Your task to perform on an android device: turn on notifications settings in the gmail app Image 0: 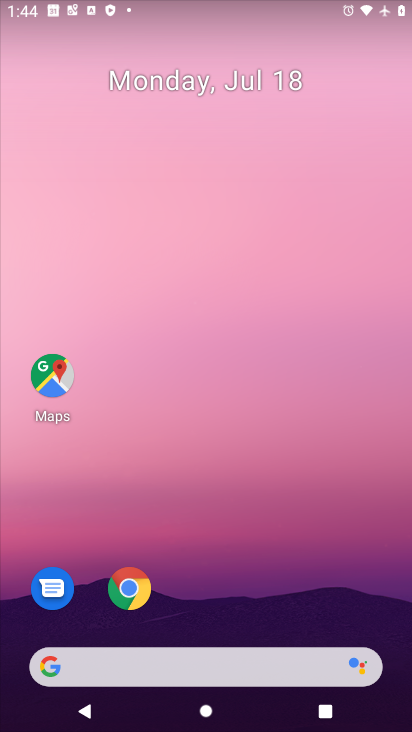
Step 0: drag from (200, 661) to (233, 206)
Your task to perform on an android device: turn on notifications settings in the gmail app Image 1: 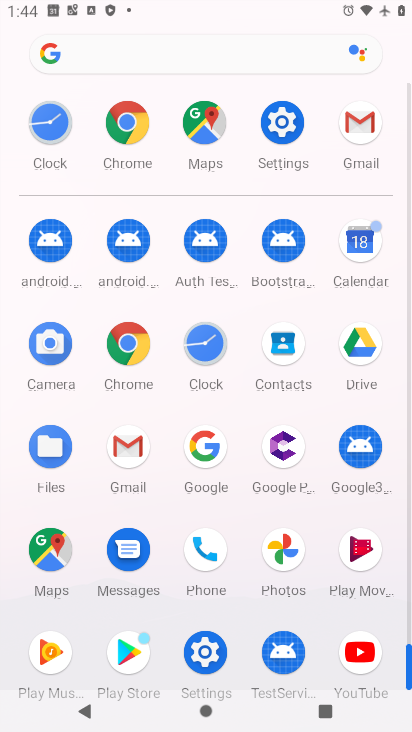
Step 1: click (129, 459)
Your task to perform on an android device: turn on notifications settings in the gmail app Image 2: 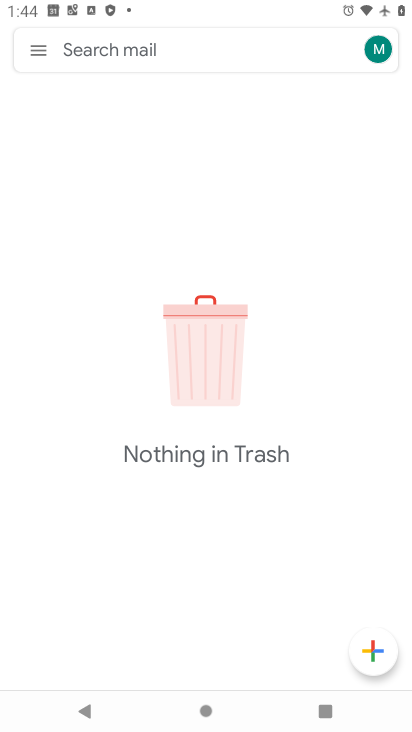
Step 2: press home button
Your task to perform on an android device: turn on notifications settings in the gmail app Image 3: 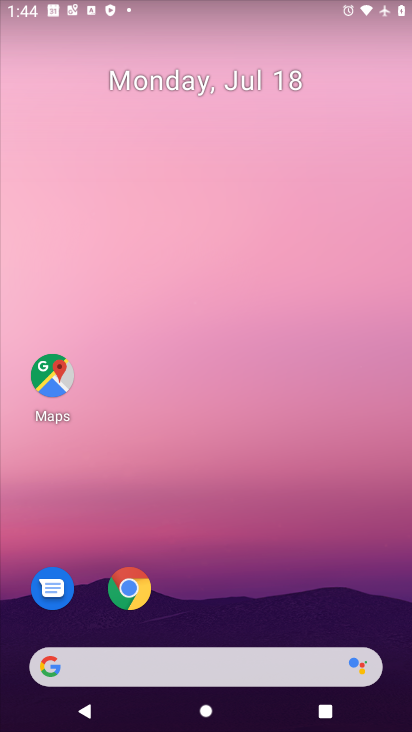
Step 3: drag from (215, 620) to (313, 228)
Your task to perform on an android device: turn on notifications settings in the gmail app Image 4: 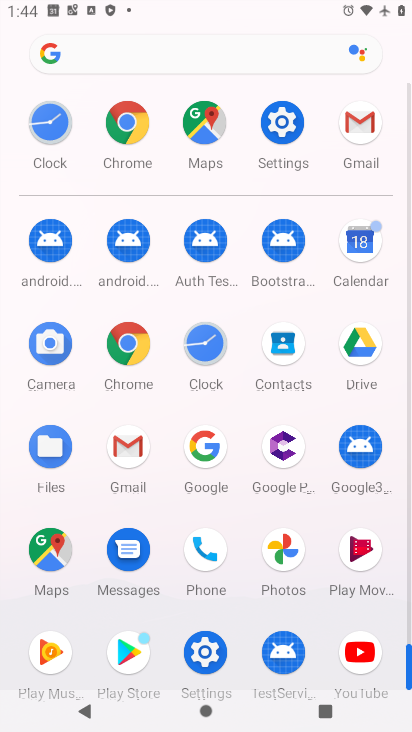
Step 4: click (134, 467)
Your task to perform on an android device: turn on notifications settings in the gmail app Image 5: 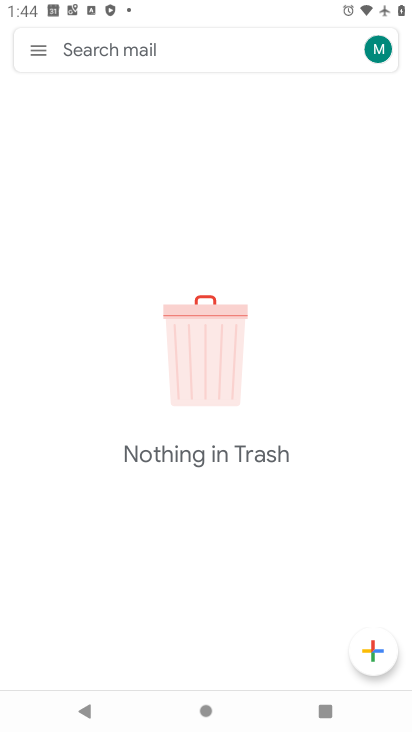
Step 5: click (38, 58)
Your task to perform on an android device: turn on notifications settings in the gmail app Image 6: 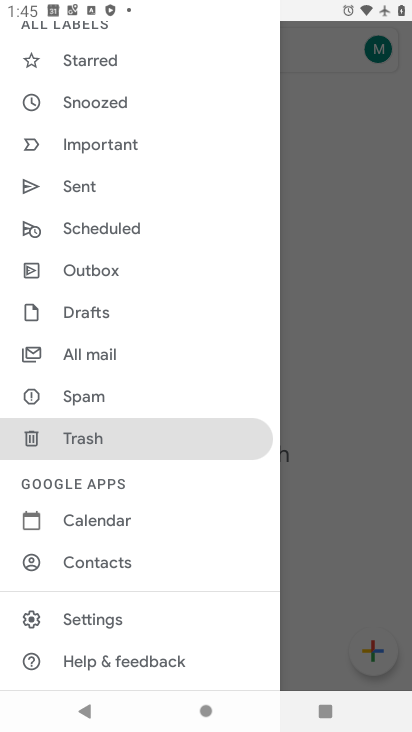
Step 6: click (96, 618)
Your task to perform on an android device: turn on notifications settings in the gmail app Image 7: 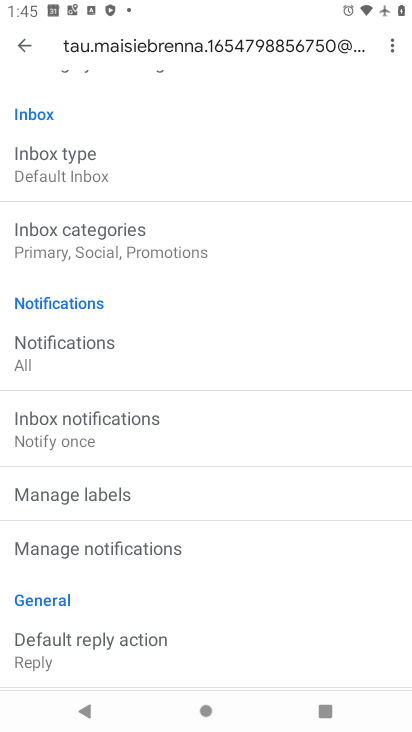
Step 7: click (27, 55)
Your task to perform on an android device: turn on notifications settings in the gmail app Image 8: 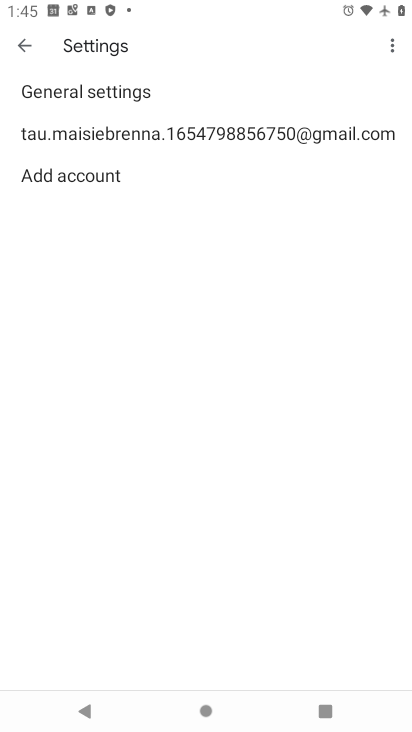
Step 8: click (82, 93)
Your task to perform on an android device: turn on notifications settings in the gmail app Image 9: 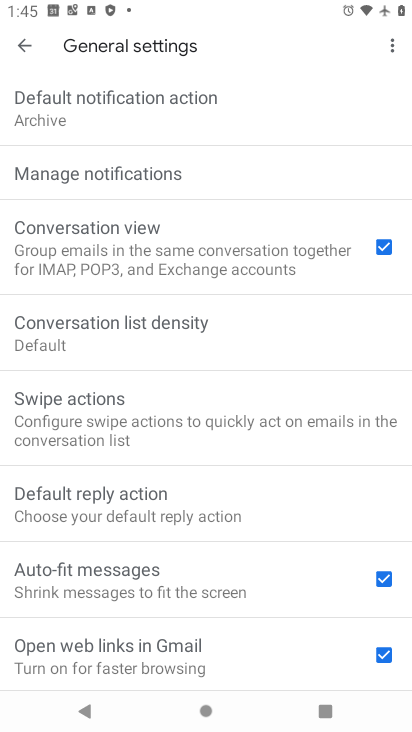
Step 9: click (70, 179)
Your task to perform on an android device: turn on notifications settings in the gmail app Image 10: 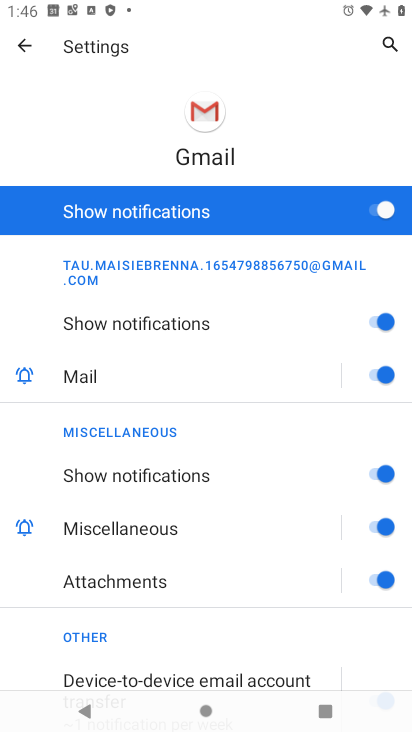
Step 10: task complete